Your task to perform on an android device: check android version Image 0: 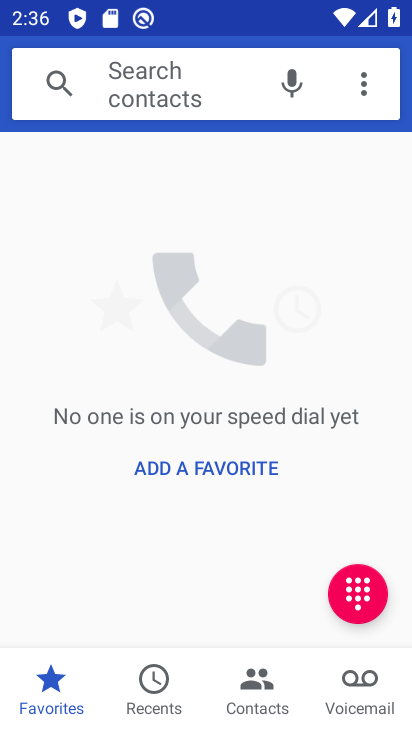
Step 0: press home button
Your task to perform on an android device: check android version Image 1: 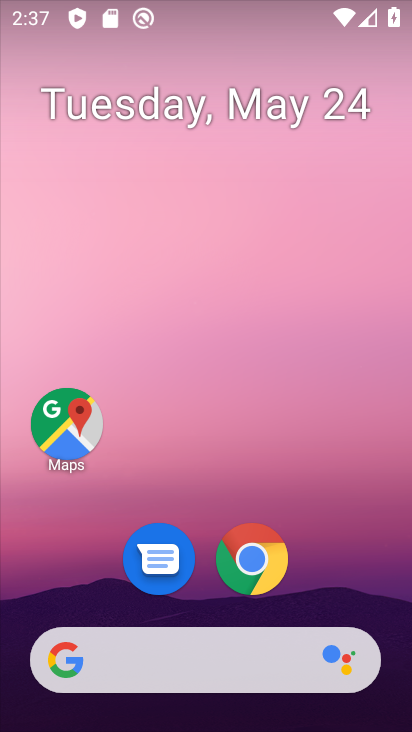
Step 1: drag from (193, 654) to (224, 261)
Your task to perform on an android device: check android version Image 2: 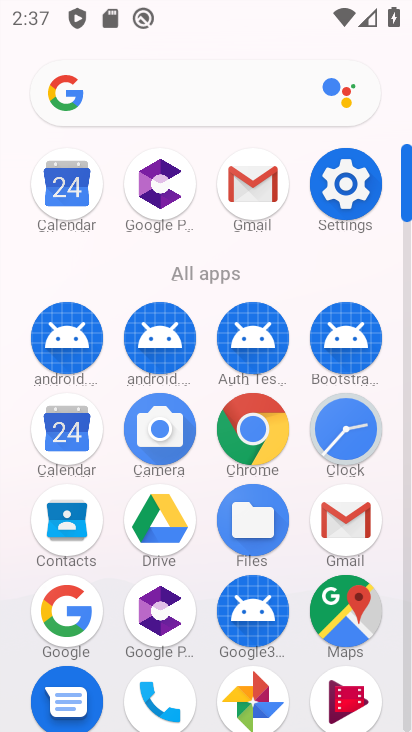
Step 2: click (333, 209)
Your task to perform on an android device: check android version Image 3: 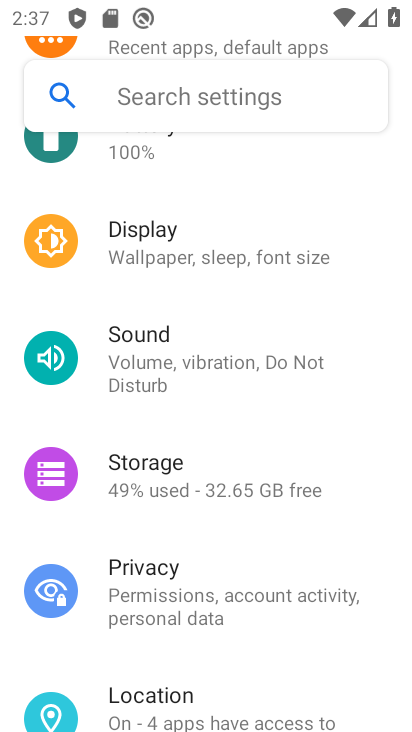
Step 3: drag from (163, 640) to (205, 166)
Your task to perform on an android device: check android version Image 4: 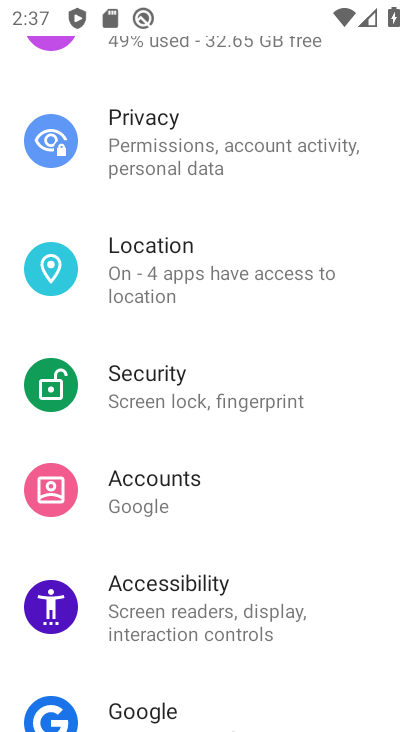
Step 4: drag from (218, 692) to (209, 167)
Your task to perform on an android device: check android version Image 5: 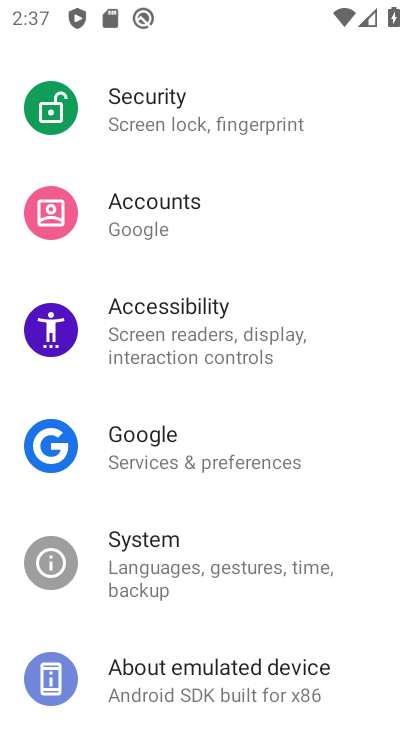
Step 5: click (150, 665)
Your task to perform on an android device: check android version Image 6: 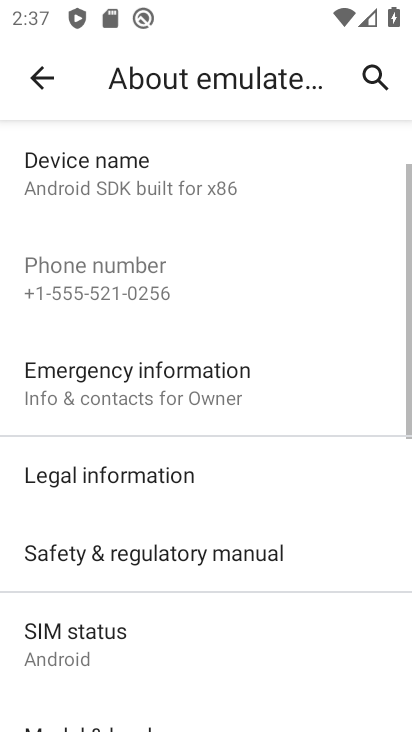
Step 6: drag from (160, 625) to (182, 290)
Your task to perform on an android device: check android version Image 7: 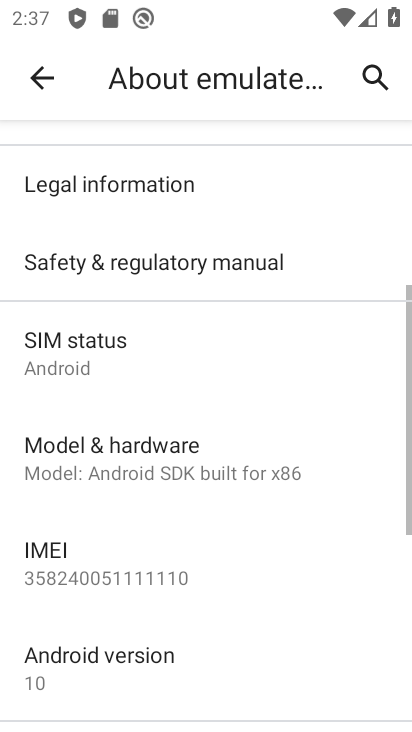
Step 7: drag from (144, 611) to (176, 257)
Your task to perform on an android device: check android version Image 8: 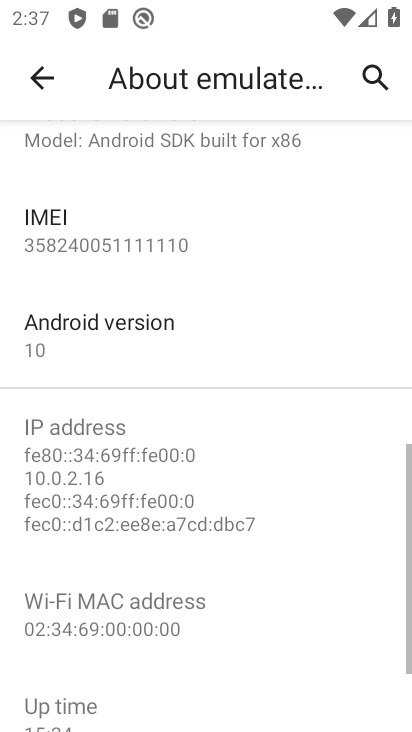
Step 8: click (111, 331)
Your task to perform on an android device: check android version Image 9: 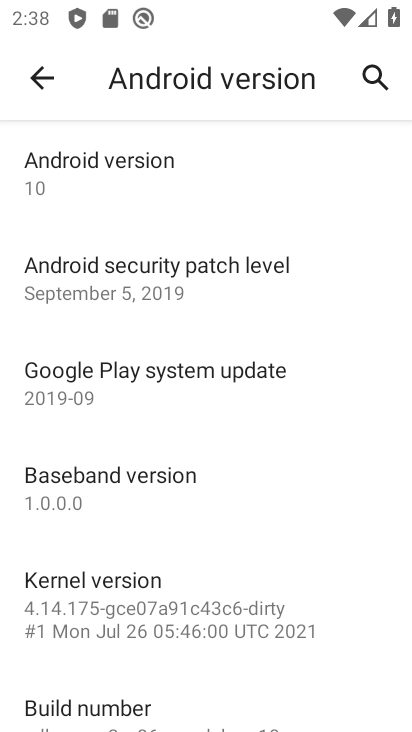
Step 9: task complete